Your task to perform on an android device: Open notification settings Image 0: 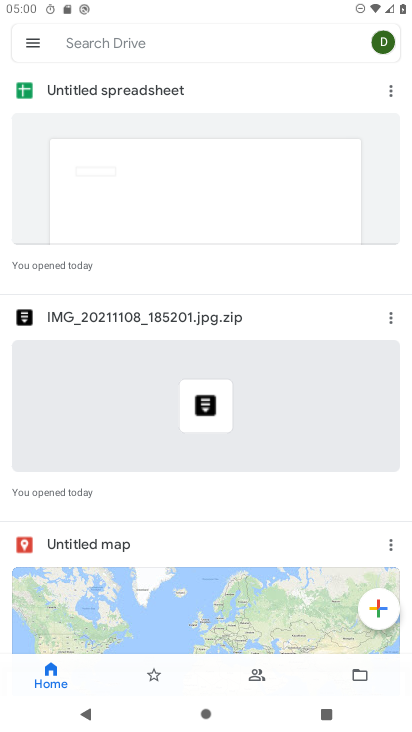
Step 0: press home button
Your task to perform on an android device: Open notification settings Image 1: 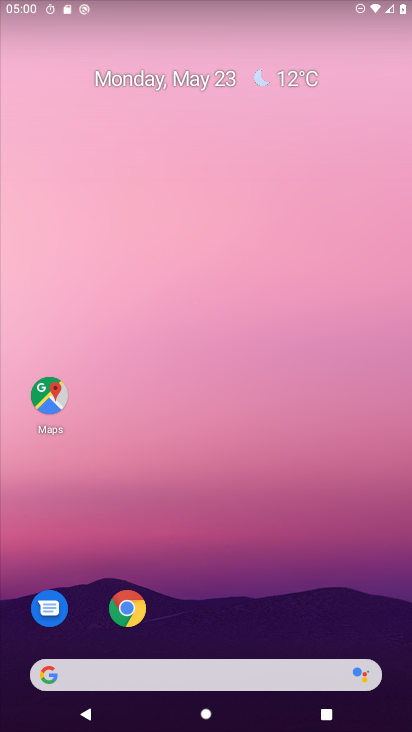
Step 1: drag from (335, 519) to (200, 8)
Your task to perform on an android device: Open notification settings Image 2: 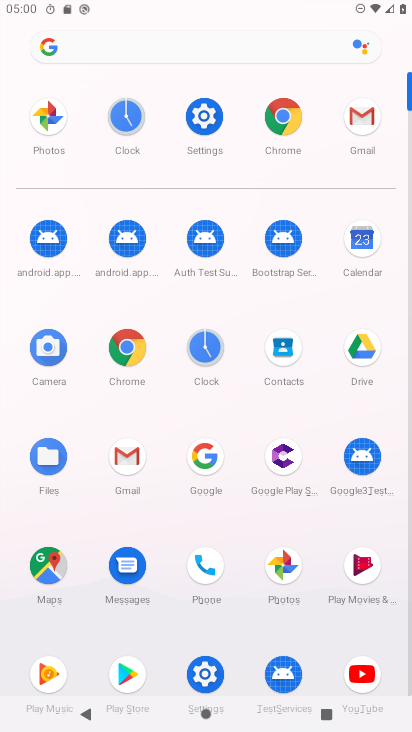
Step 2: click (201, 119)
Your task to perform on an android device: Open notification settings Image 3: 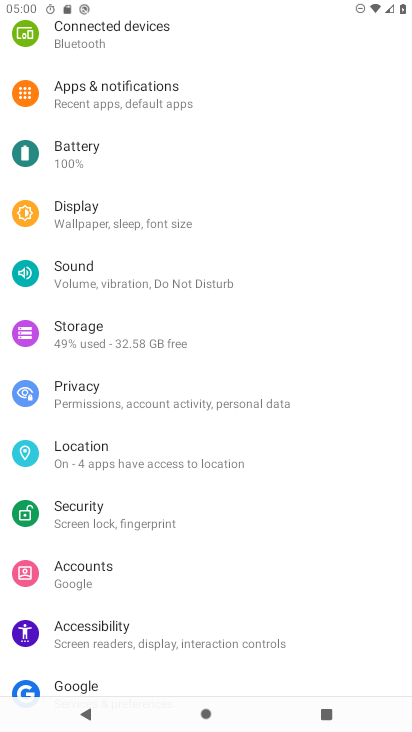
Step 3: click (174, 81)
Your task to perform on an android device: Open notification settings Image 4: 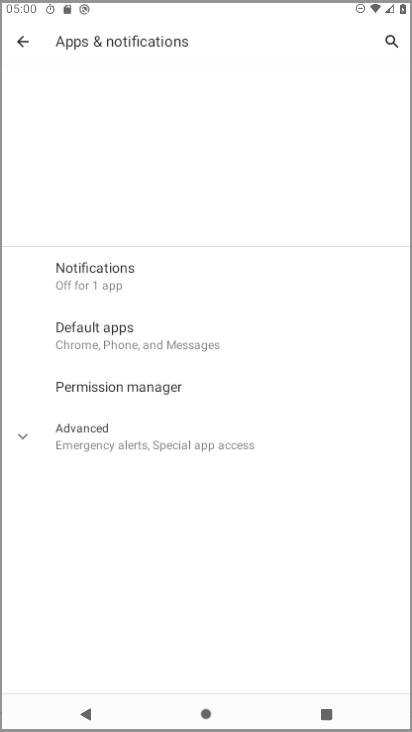
Step 4: task complete